Your task to perform on an android device: add a contact Image 0: 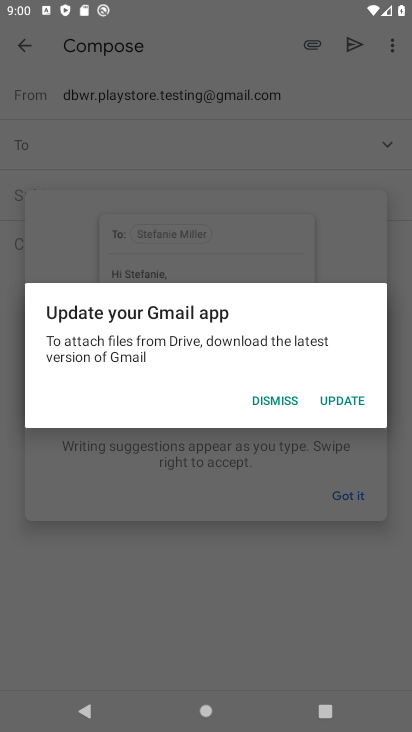
Step 0: press home button
Your task to perform on an android device: add a contact Image 1: 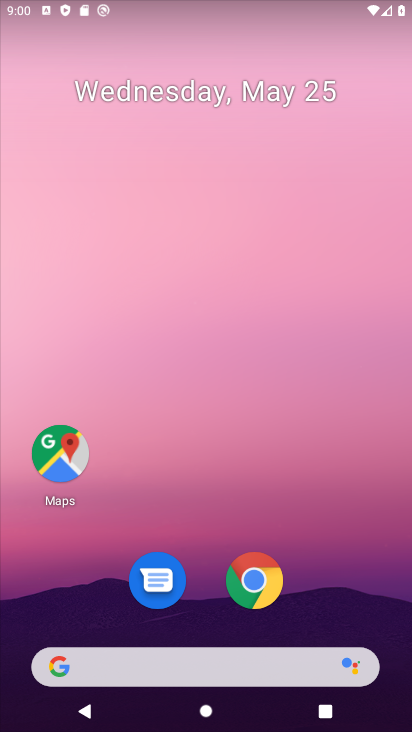
Step 1: drag from (25, 541) to (250, 93)
Your task to perform on an android device: add a contact Image 2: 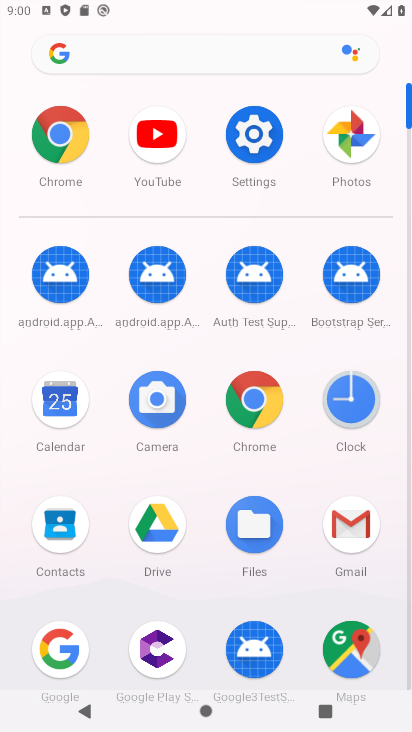
Step 2: drag from (3, 647) to (298, 84)
Your task to perform on an android device: add a contact Image 3: 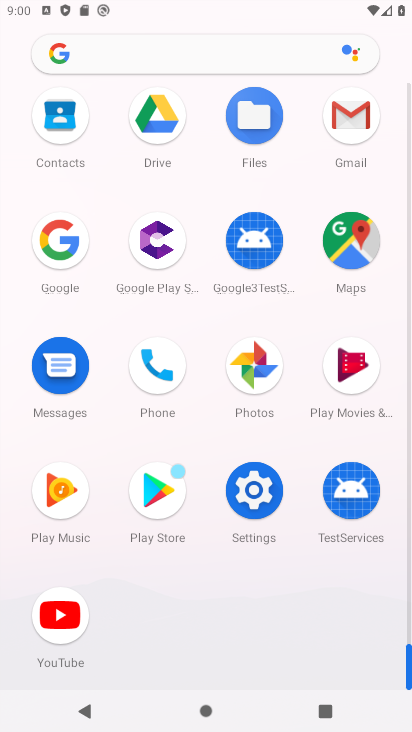
Step 3: click (146, 390)
Your task to perform on an android device: add a contact Image 4: 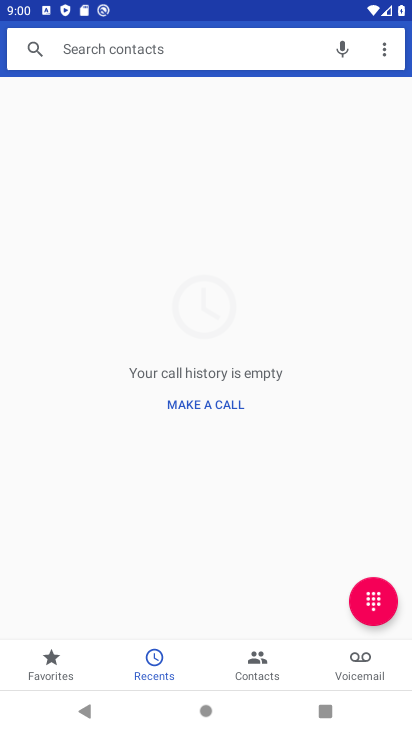
Step 4: click (257, 668)
Your task to perform on an android device: add a contact Image 5: 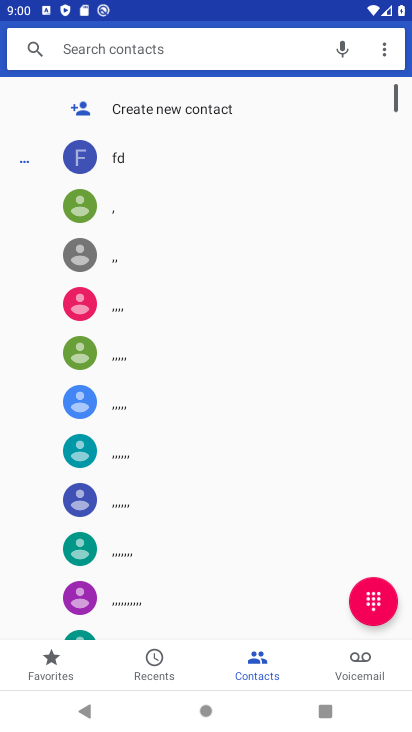
Step 5: click (192, 110)
Your task to perform on an android device: add a contact Image 6: 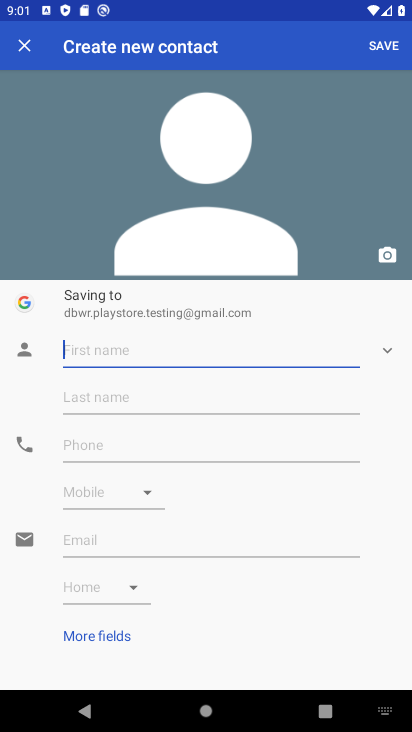
Step 6: type "ghff"
Your task to perform on an android device: add a contact Image 7: 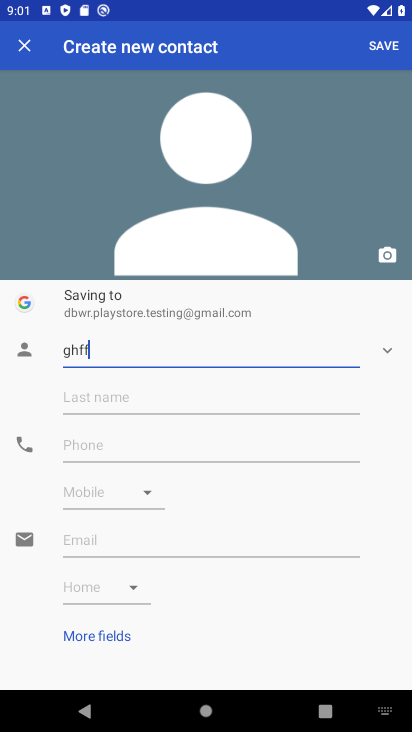
Step 7: type ""
Your task to perform on an android device: add a contact Image 8: 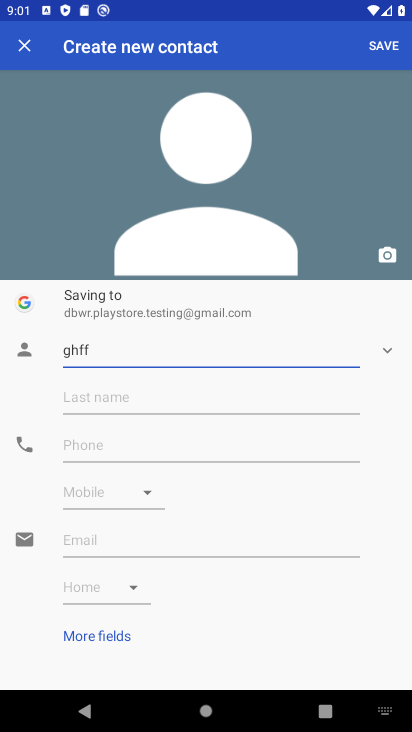
Step 8: click (371, 45)
Your task to perform on an android device: add a contact Image 9: 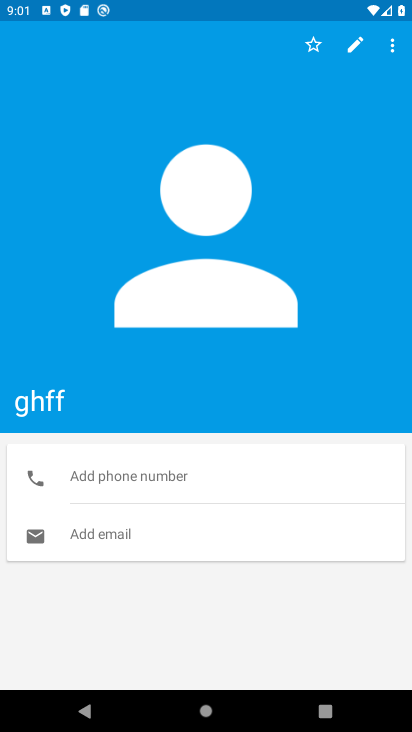
Step 9: task complete